Your task to perform on an android device: Show me the alarms in the clock app Image 0: 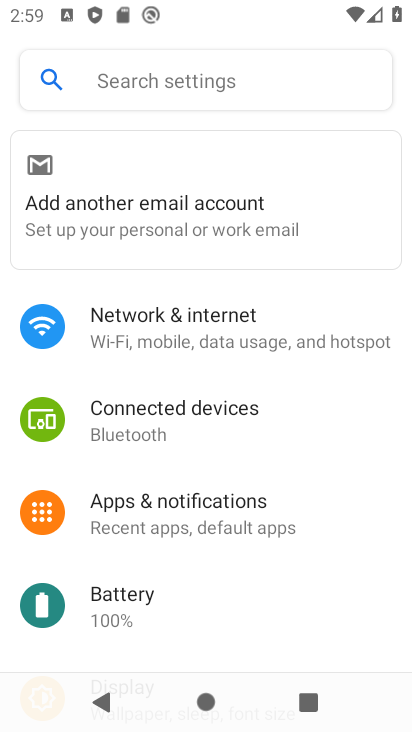
Step 0: press home button
Your task to perform on an android device: Show me the alarms in the clock app Image 1: 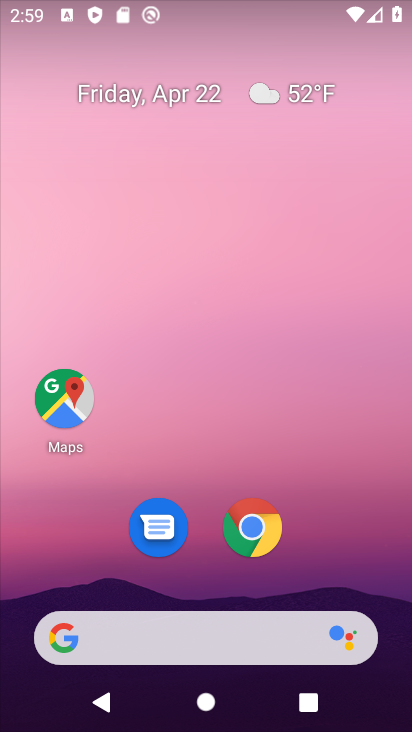
Step 1: drag from (357, 502) to (368, 159)
Your task to perform on an android device: Show me the alarms in the clock app Image 2: 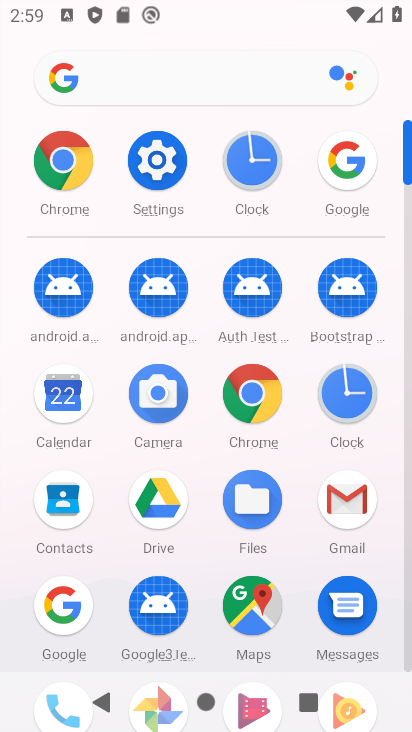
Step 2: click (252, 169)
Your task to perform on an android device: Show me the alarms in the clock app Image 3: 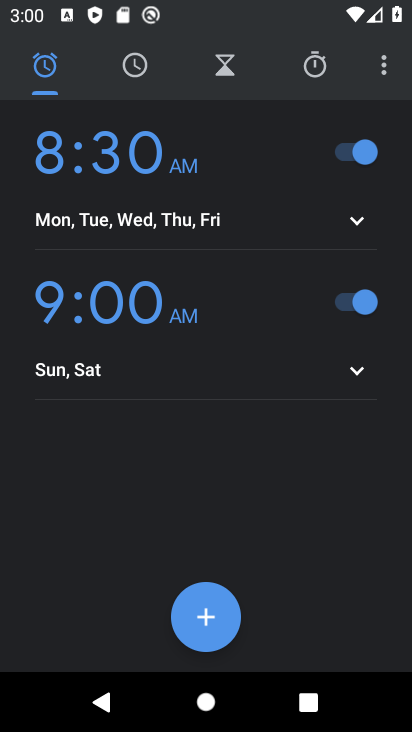
Step 3: click (143, 186)
Your task to perform on an android device: Show me the alarms in the clock app Image 4: 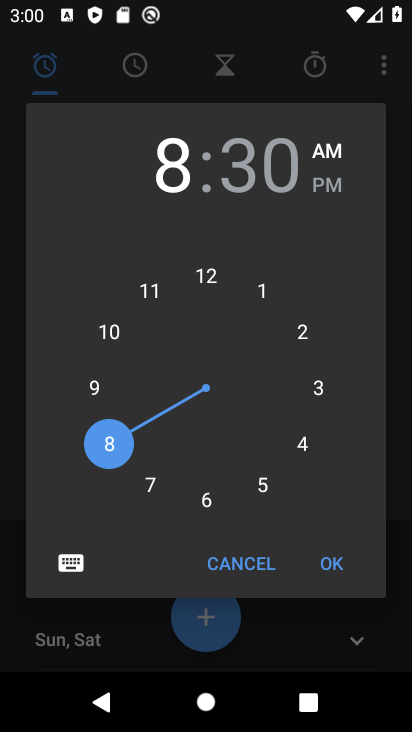
Step 4: task complete